Your task to perform on an android device: Go to eBay Image 0: 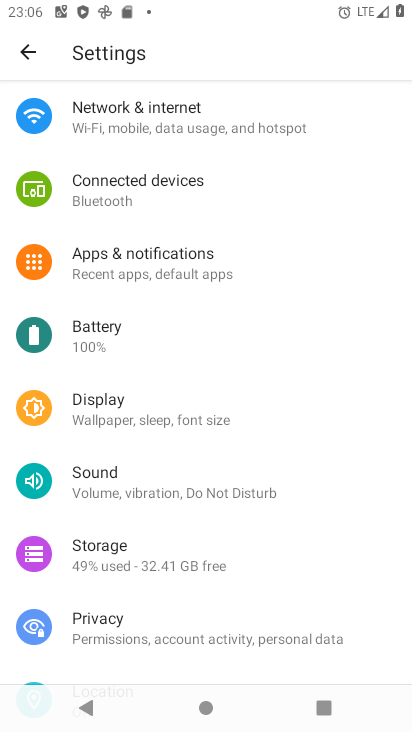
Step 0: press home button
Your task to perform on an android device: Go to eBay Image 1: 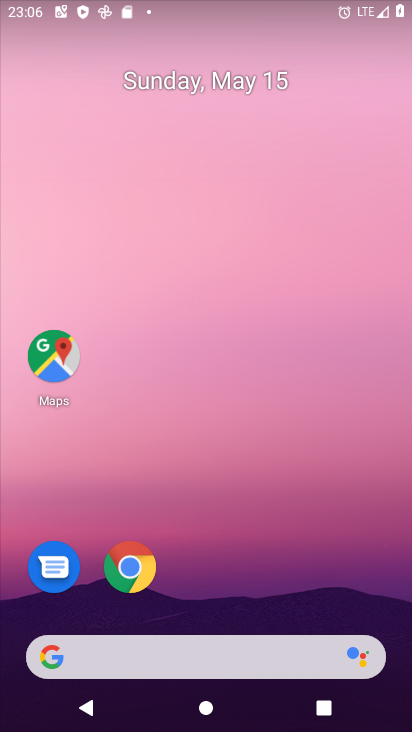
Step 1: click (271, 649)
Your task to perform on an android device: Go to eBay Image 2: 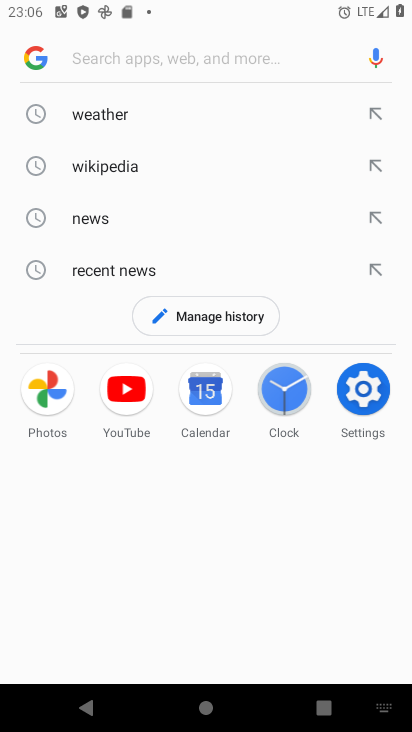
Step 2: type "ebay"
Your task to perform on an android device: Go to eBay Image 3: 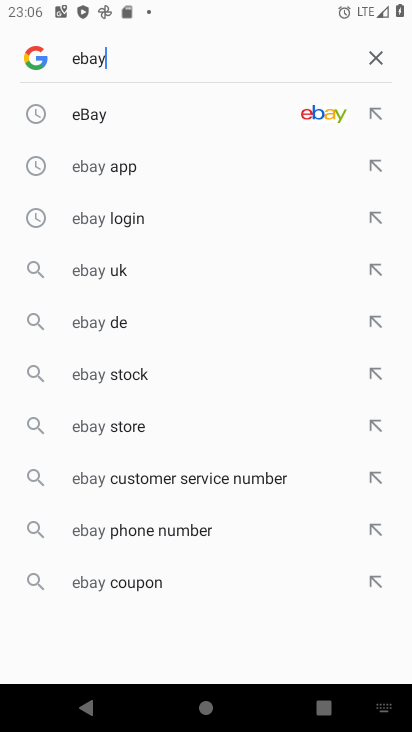
Step 3: click (274, 113)
Your task to perform on an android device: Go to eBay Image 4: 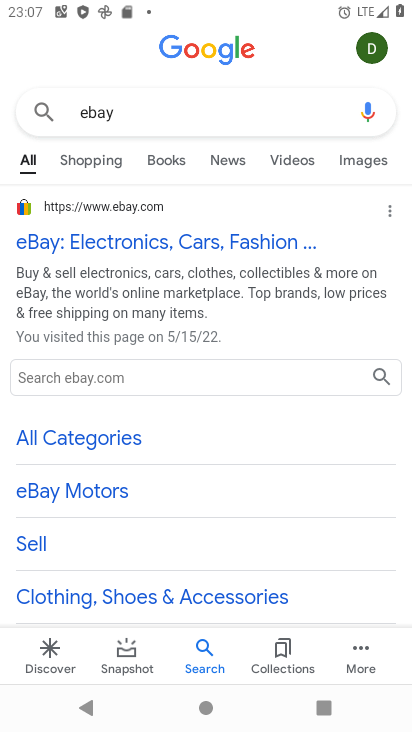
Step 4: click (151, 208)
Your task to perform on an android device: Go to eBay Image 5: 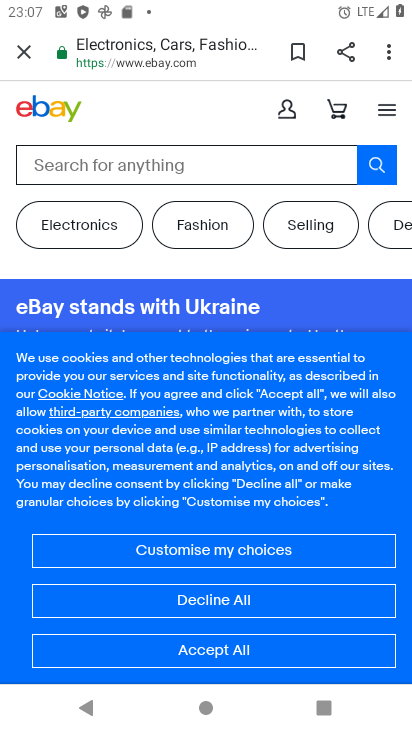
Step 5: task complete